Your task to perform on an android device: Show me recent news Image 0: 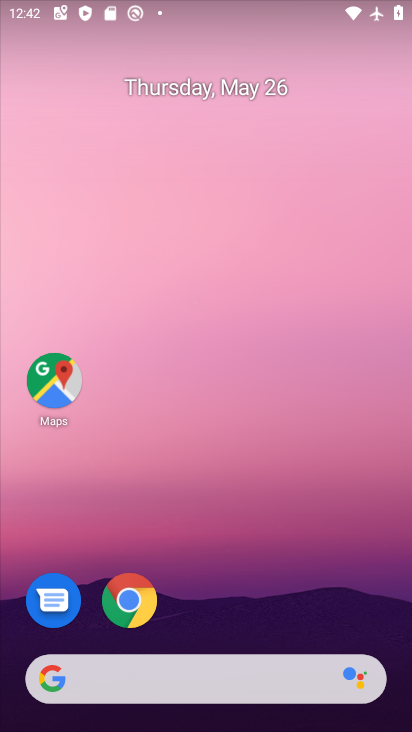
Step 0: drag from (235, 580) to (286, 200)
Your task to perform on an android device: Show me recent news Image 1: 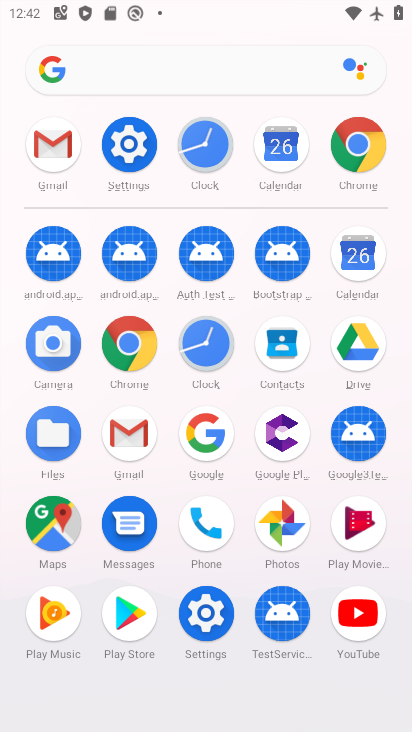
Step 1: click (128, 348)
Your task to perform on an android device: Show me recent news Image 2: 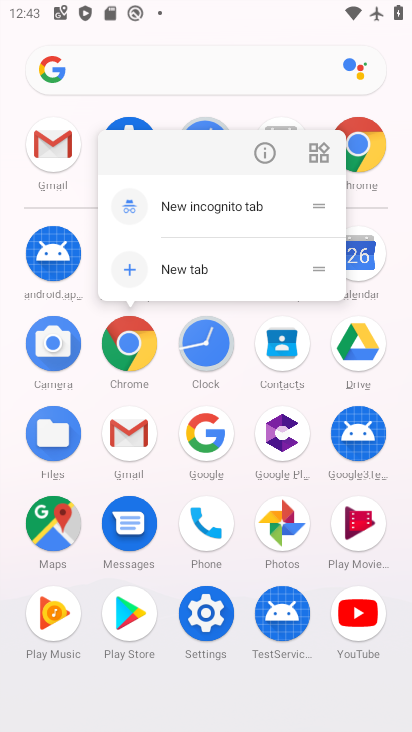
Step 2: click (131, 349)
Your task to perform on an android device: Show me recent news Image 3: 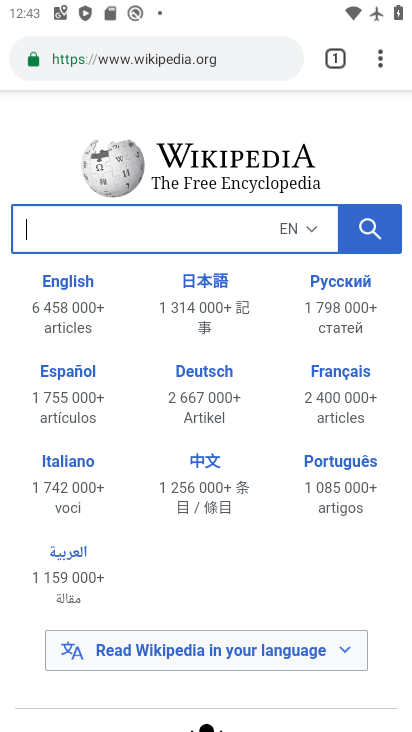
Step 3: click (159, 60)
Your task to perform on an android device: Show me recent news Image 4: 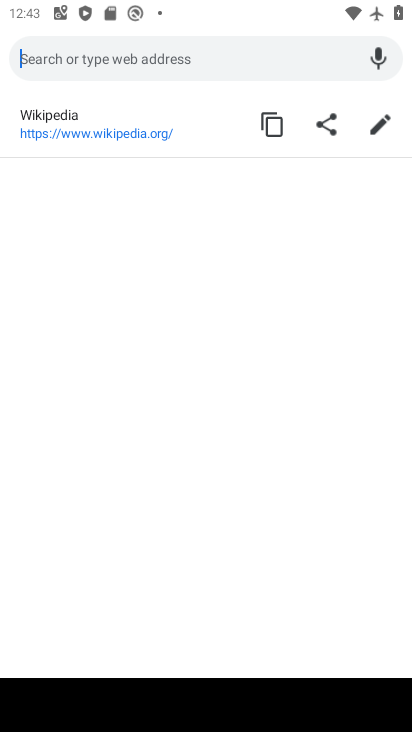
Step 4: type "news"
Your task to perform on an android device: Show me recent news Image 5: 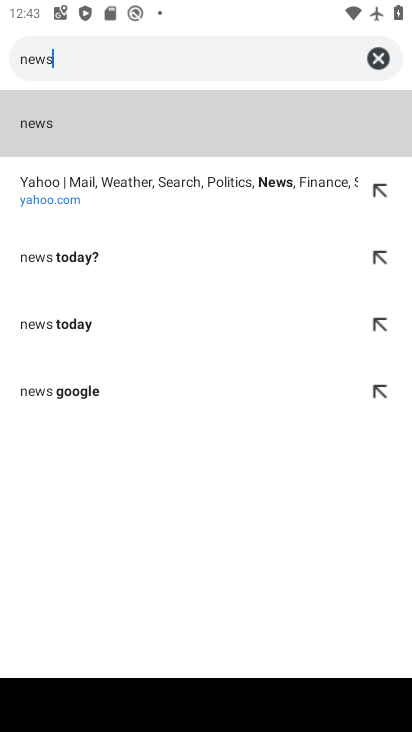
Step 5: click (65, 133)
Your task to perform on an android device: Show me recent news Image 6: 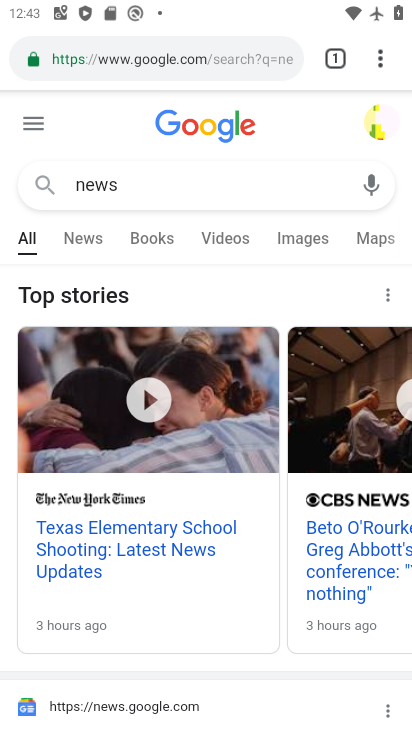
Step 6: click (91, 232)
Your task to perform on an android device: Show me recent news Image 7: 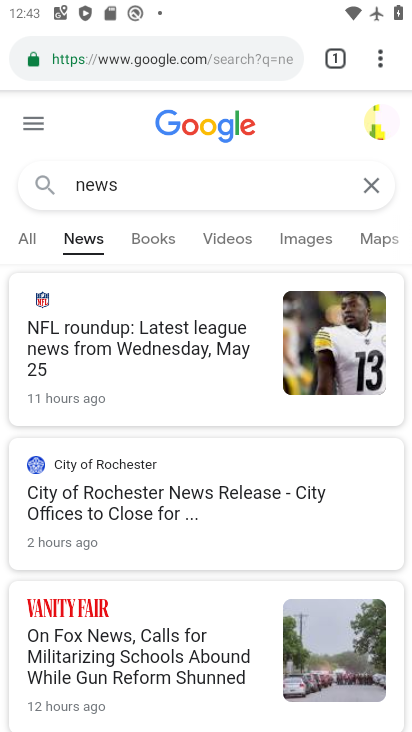
Step 7: task complete